Your task to perform on an android device: Go to Maps Image 0: 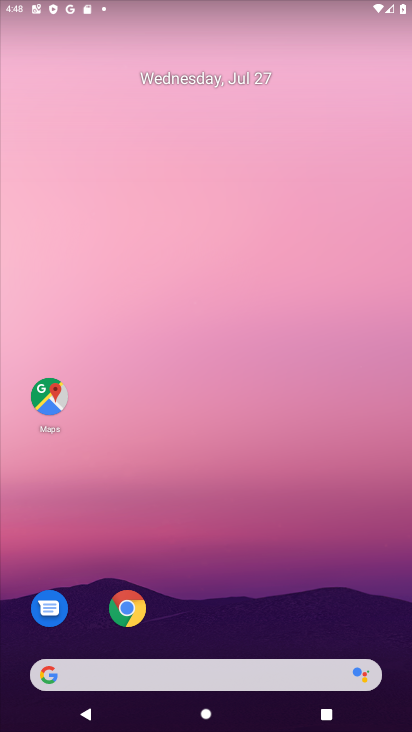
Step 0: click (54, 398)
Your task to perform on an android device: Go to Maps Image 1: 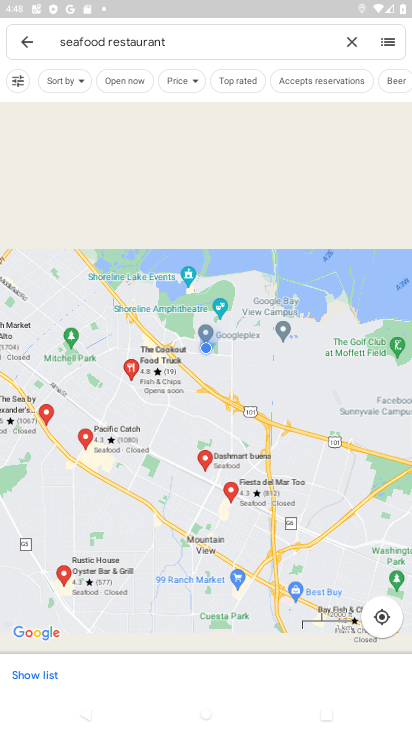
Step 1: task complete